Your task to perform on an android device: Open battery settings Image 0: 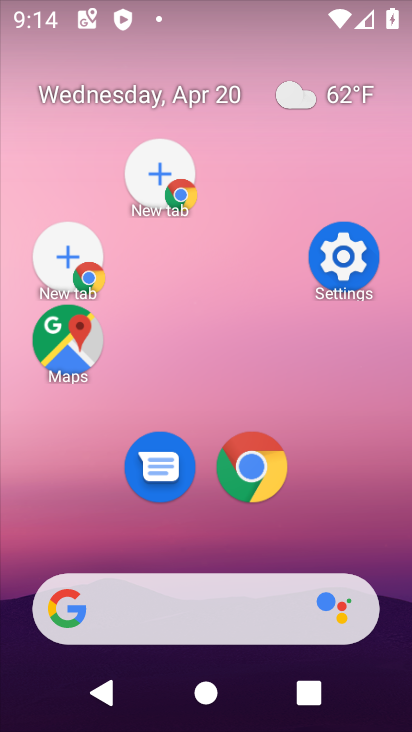
Step 0: drag from (184, 445) to (157, 267)
Your task to perform on an android device: Open battery settings Image 1: 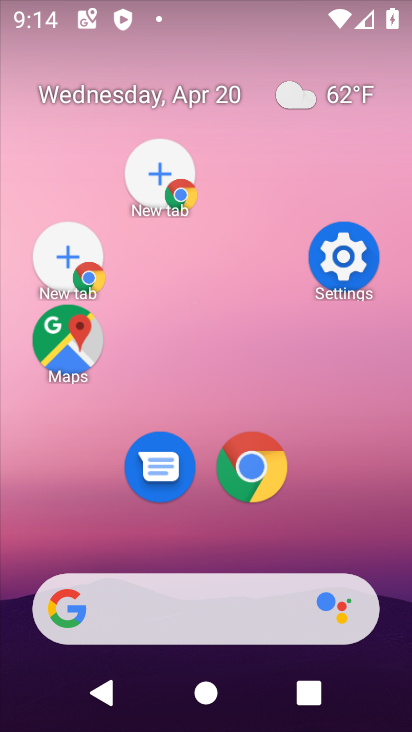
Step 1: drag from (149, 224) to (125, 52)
Your task to perform on an android device: Open battery settings Image 2: 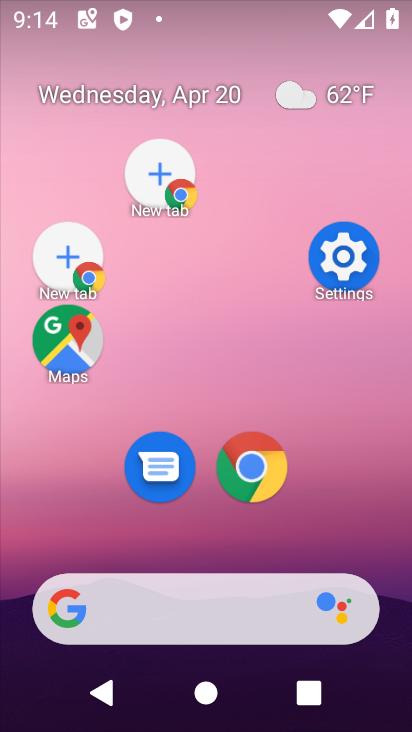
Step 2: drag from (224, 557) to (166, 147)
Your task to perform on an android device: Open battery settings Image 3: 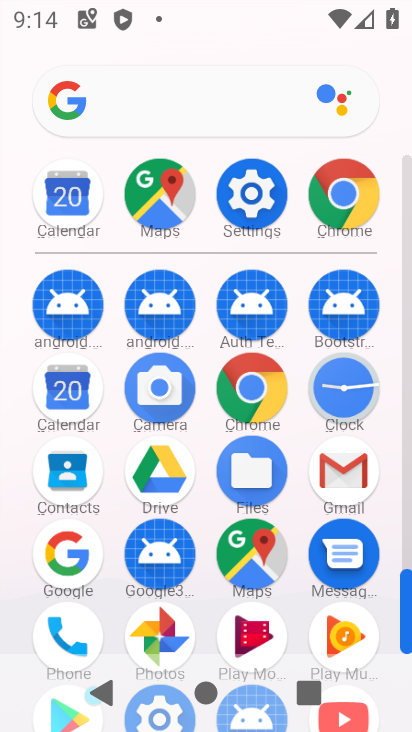
Step 3: click (259, 198)
Your task to perform on an android device: Open battery settings Image 4: 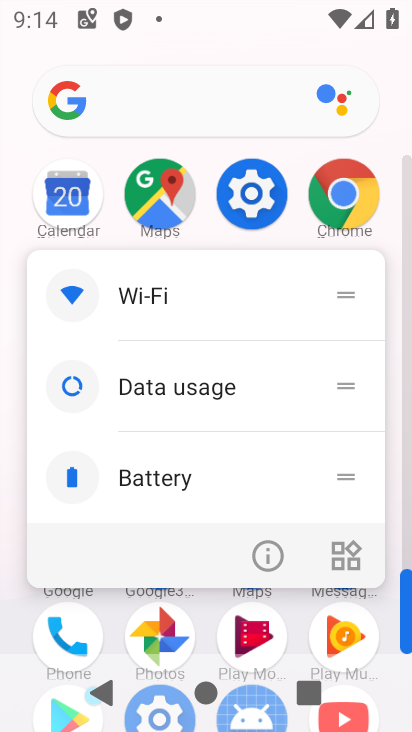
Step 4: click (250, 187)
Your task to perform on an android device: Open battery settings Image 5: 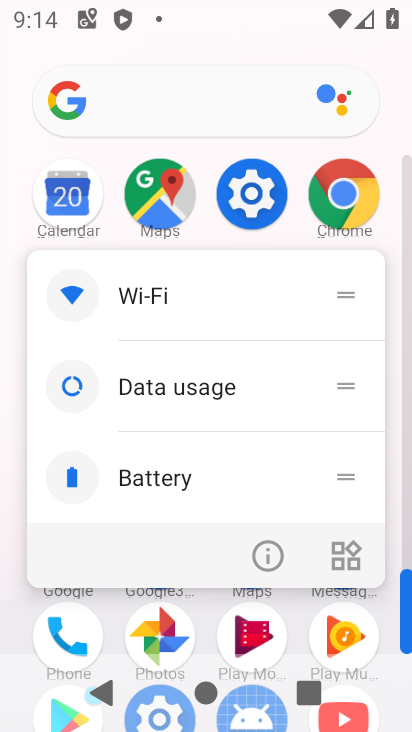
Step 5: click (259, 198)
Your task to perform on an android device: Open battery settings Image 6: 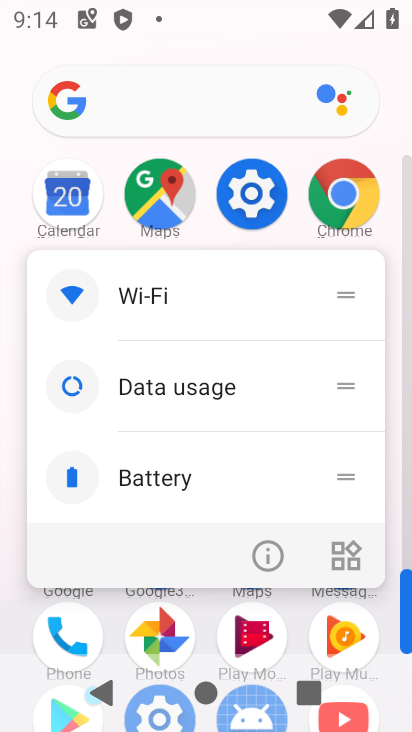
Step 6: click (242, 193)
Your task to perform on an android device: Open battery settings Image 7: 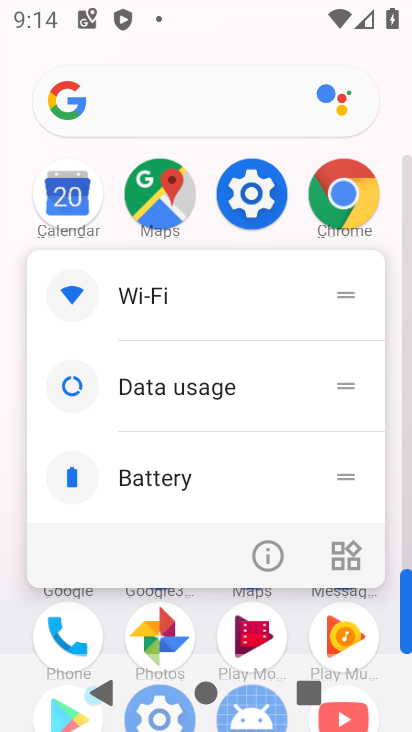
Step 7: click (246, 187)
Your task to perform on an android device: Open battery settings Image 8: 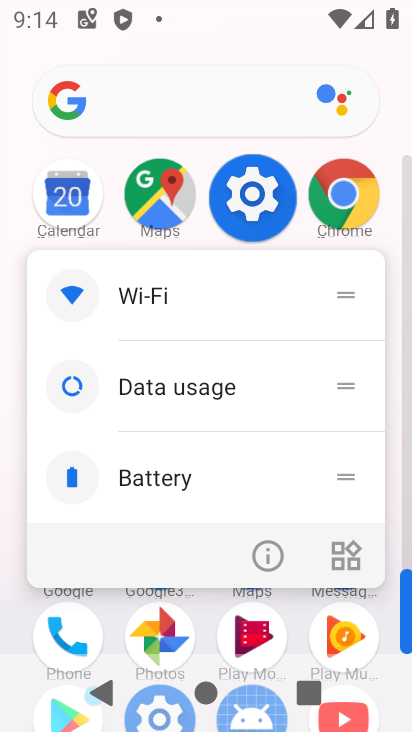
Step 8: click (247, 194)
Your task to perform on an android device: Open battery settings Image 9: 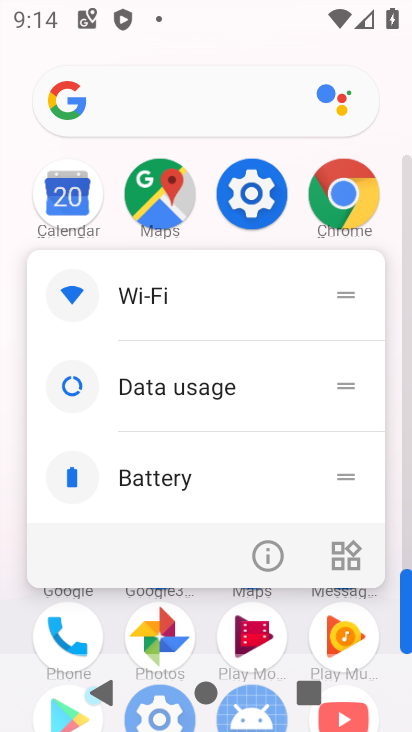
Step 9: click (247, 196)
Your task to perform on an android device: Open battery settings Image 10: 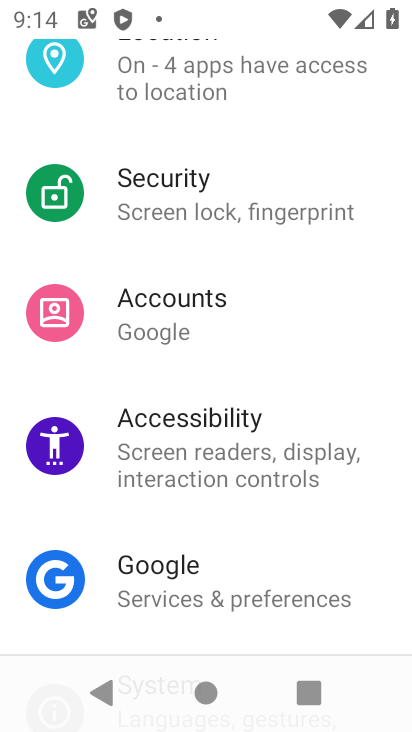
Step 10: drag from (168, 171) to (249, 504)
Your task to perform on an android device: Open battery settings Image 11: 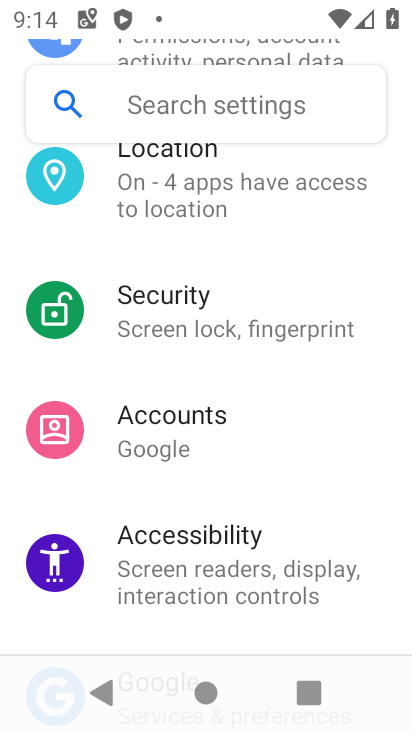
Step 11: drag from (186, 224) to (260, 650)
Your task to perform on an android device: Open battery settings Image 12: 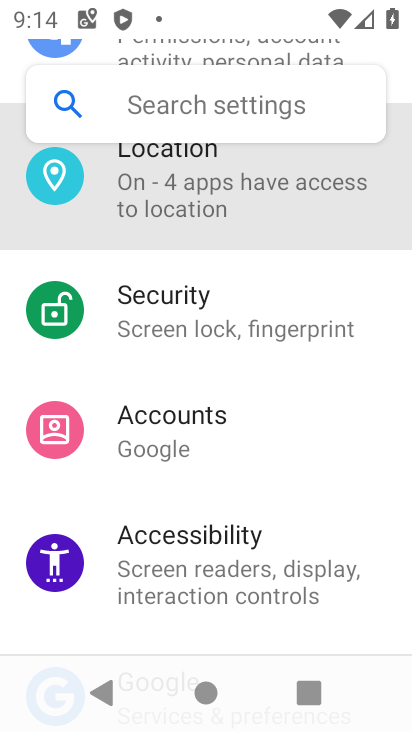
Step 12: drag from (179, 353) to (227, 612)
Your task to perform on an android device: Open battery settings Image 13: 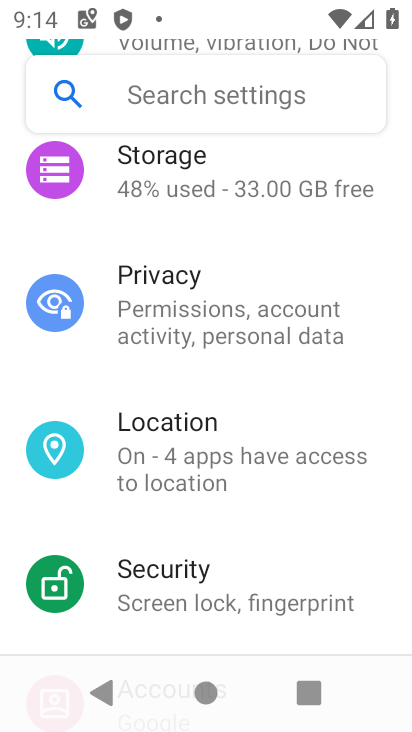
Step 13: drag from (204, 519) to (233, 599)
Your task to perform on an android device: Open battery settings Image 14: 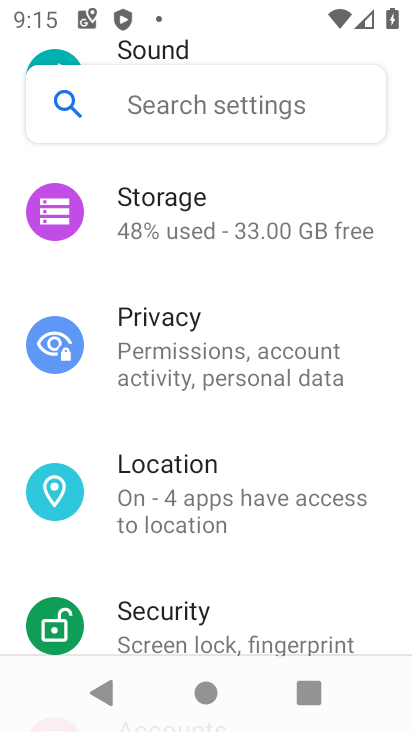
Step 14: drag from (181, 307) to (218, 522)
Your task to perform on an android device: Open battery settings Image 15: 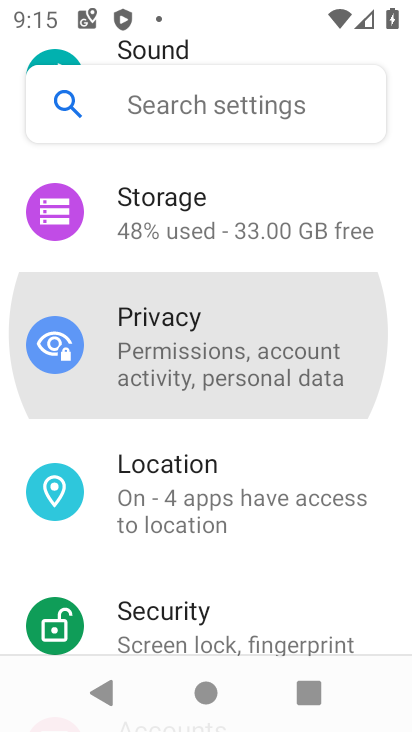
Step 15: click (257, 620)
Your task to perform on an android device: Open battery settings Image 16: 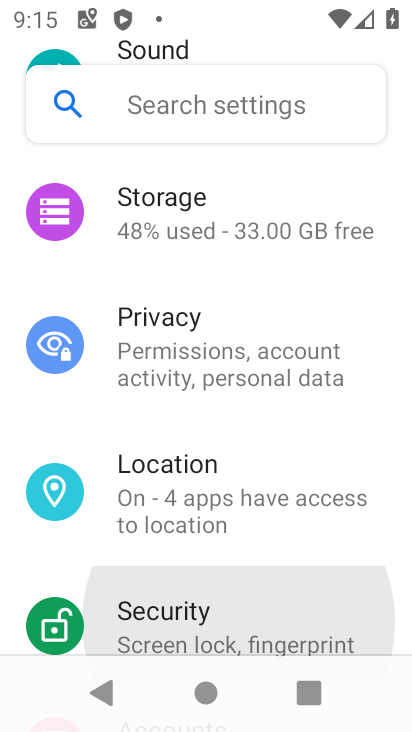
Step 16: click (165, 584)
Your task to perform on an android device: Open battery settings Image 17: 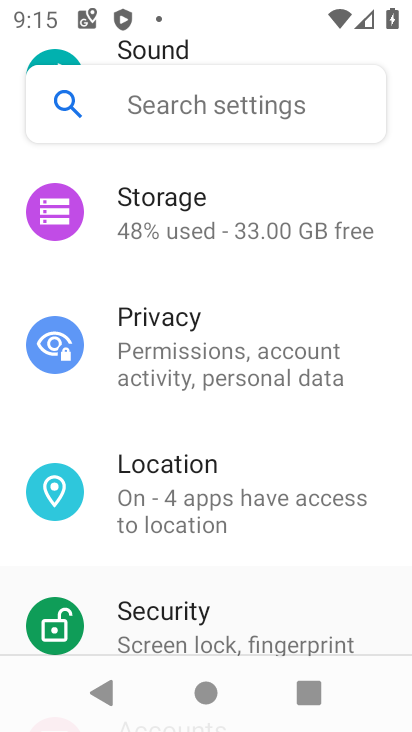
Step 17: drag from (169, 331) to (198, 480)
Your task to perform on an android device: Open battery settings Image 18: 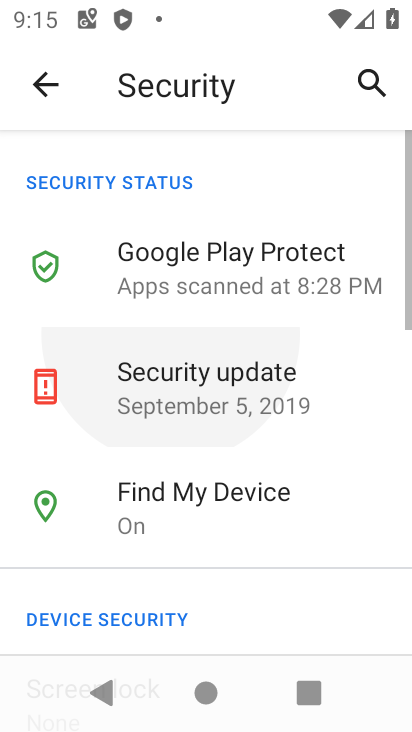
Step 18: drag from (197, 375) to (269, 502)
Your task to perform on an android device: Open battery settings Image 19: 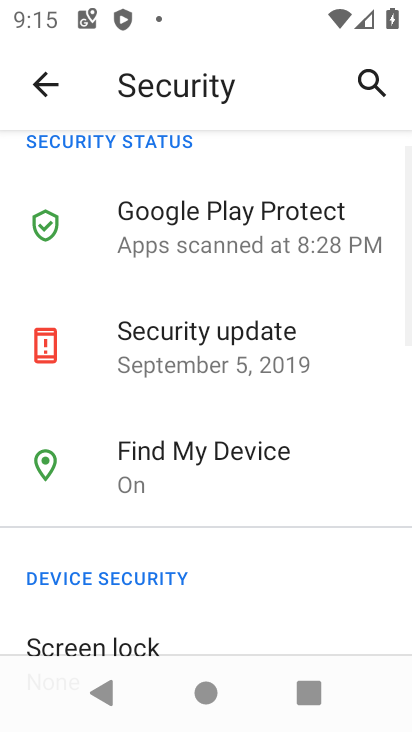
Step 19: click (46, 83)
Your task to perform on an android device: Open battery settings Image 20: 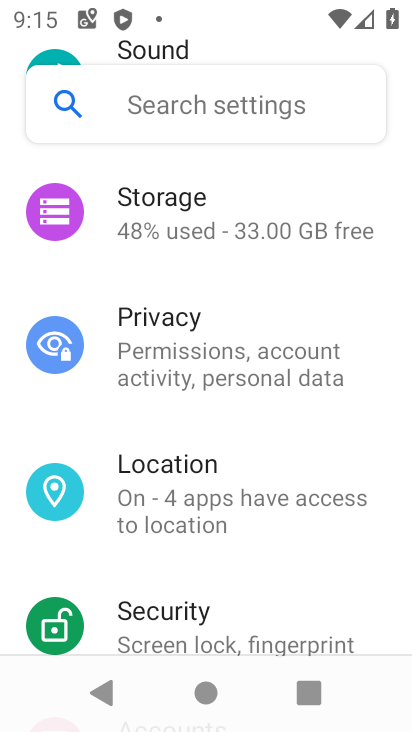
Step 20: task complete